Your task to perform on an android device: Open location settings Image 0: 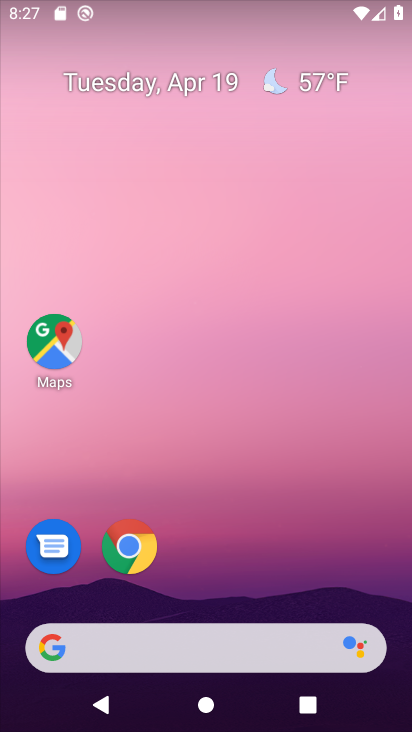
Step 0: drag from (225, 609) to (393, 5)
Your task to perform on an android device: Open location settings Image 1: 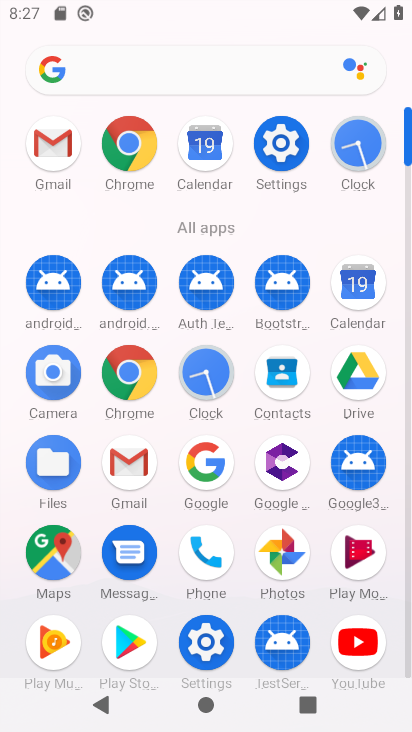
Step 1: click (209, 643)
Your task to perform on an android device: Open location settings Image 2: 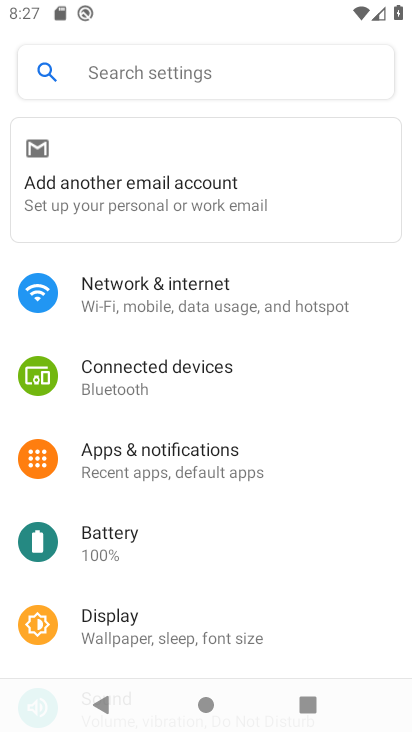
Step 2: drag from (178, 602) to (262, 187)
Your task to perform on an android device: Open location settings Image 3: 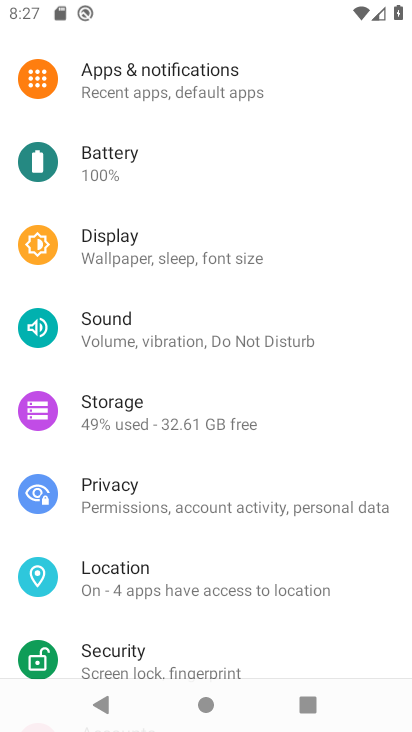
Step 3: click (130, 592)
Your task to perform on an android device: Open location settings Image 4: 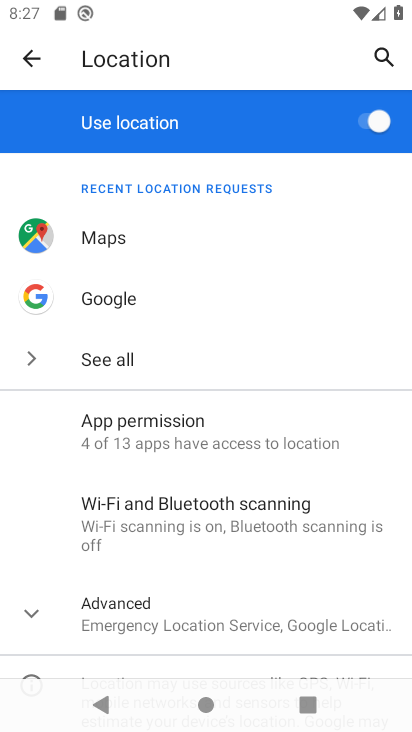
Step 4: task complete